Your task to perform on an android device: toggle notification dots Image 0: 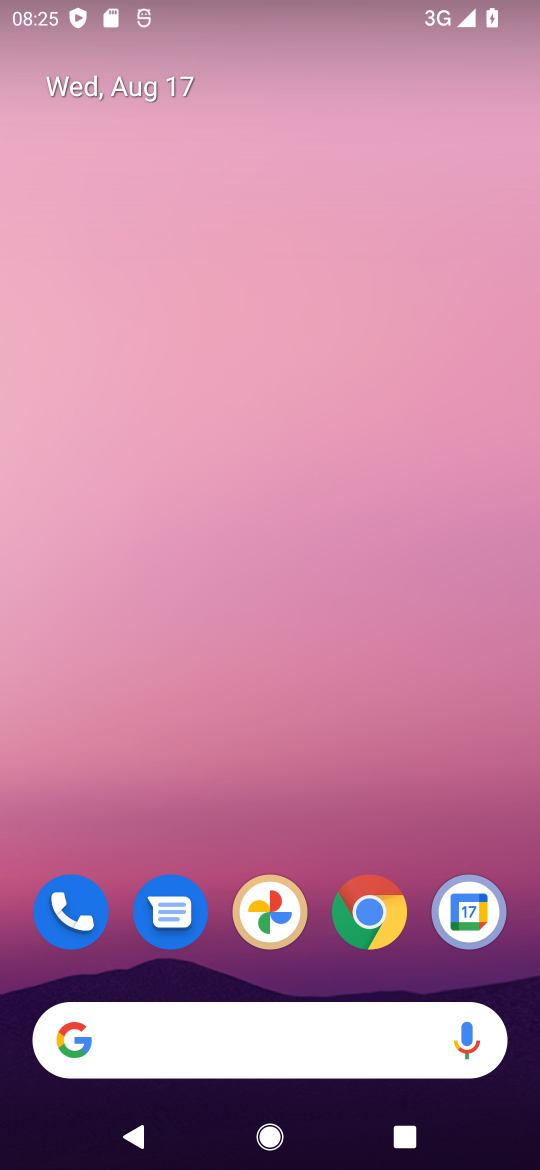
Step 0: drag from (205, 1033) to (236, 318)
Your task to perform on an android device: toggle notification dots Image 1: 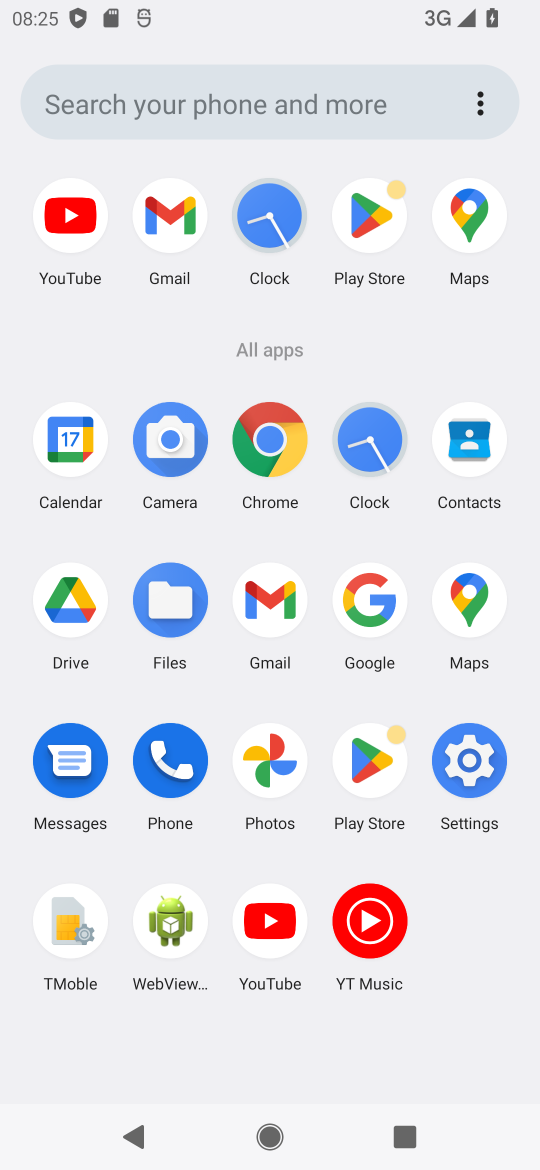
Step 1: click (460, 772)
Your task to perform on an android device: toggle notification dots Image 2: 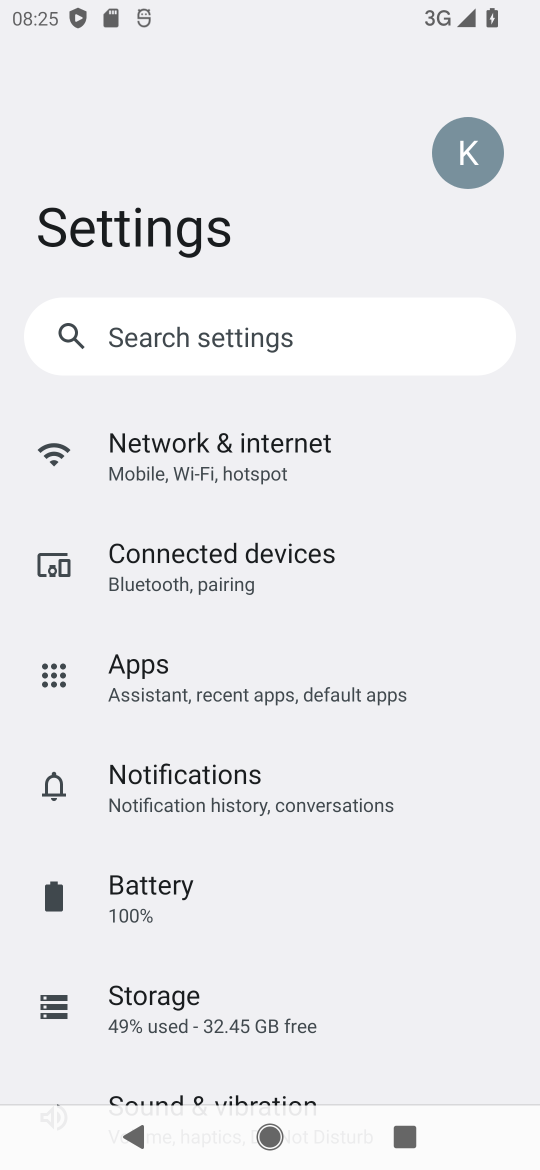
Step 2: click (204, 793)
Your task to perform on an android device: toggle notification dots Image 3: 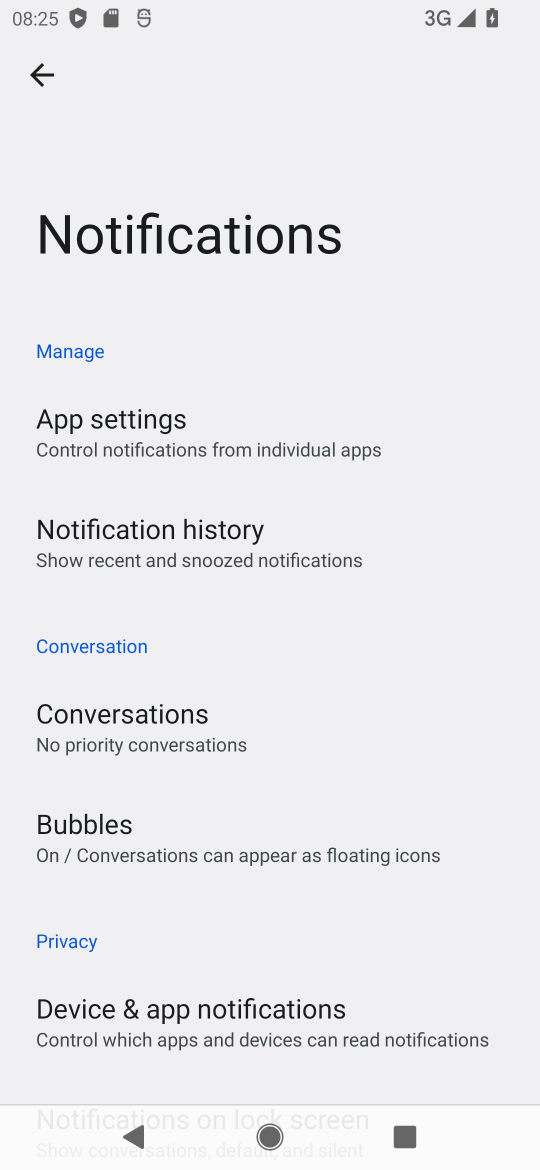
Step 3: click (92, 544)
Your task to perform on an android device: toggle notification dots Image 4: 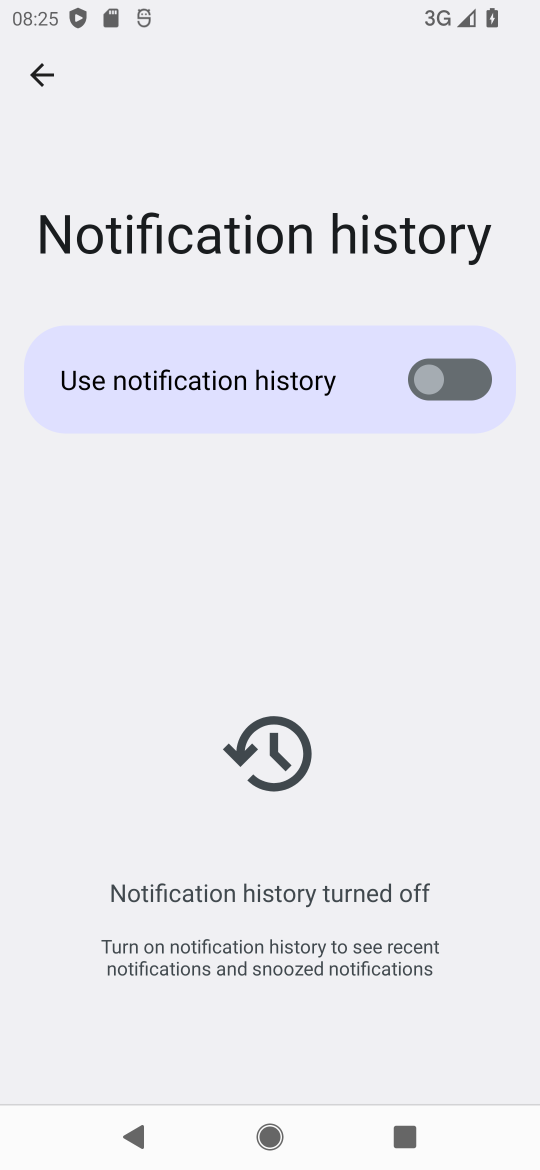
Step 4: click (452, 374)
Your task to perform on an android device: toggle notification dots Image 5: 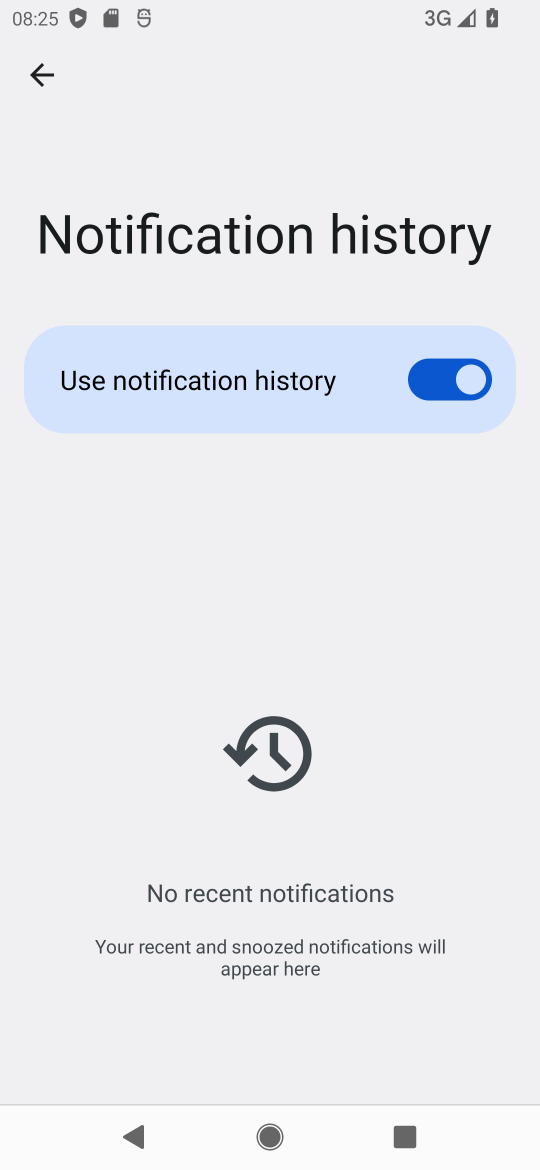
Step 5: click (28, 79)
Your task to perform on an android device: toggle notification dots Image 6: 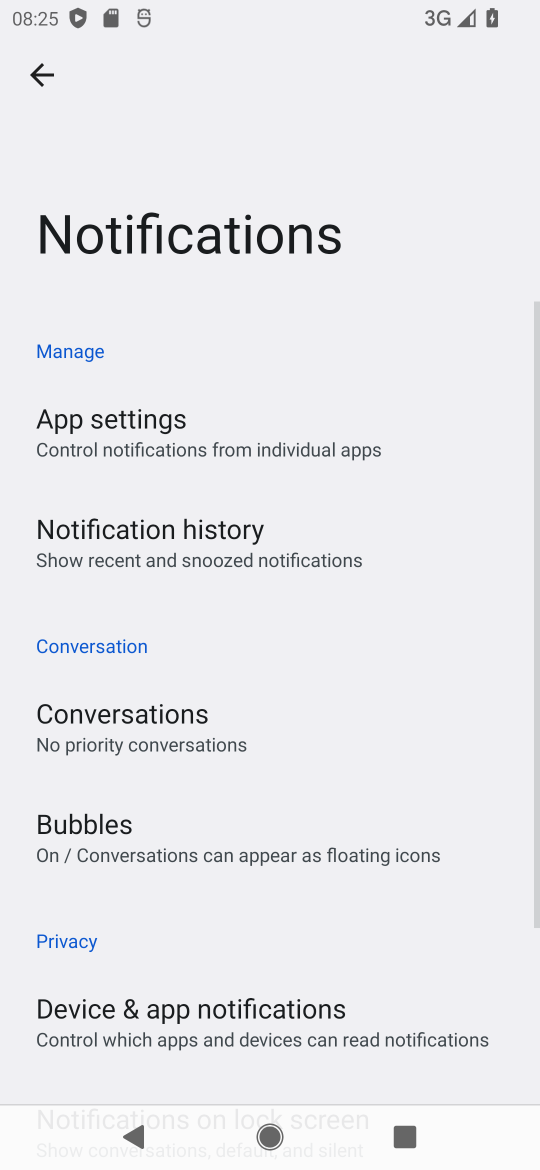
Step 6: drag from (201, 840) to (201, 416)
Your task to perform on an android device: toggle notification dots Image 7: 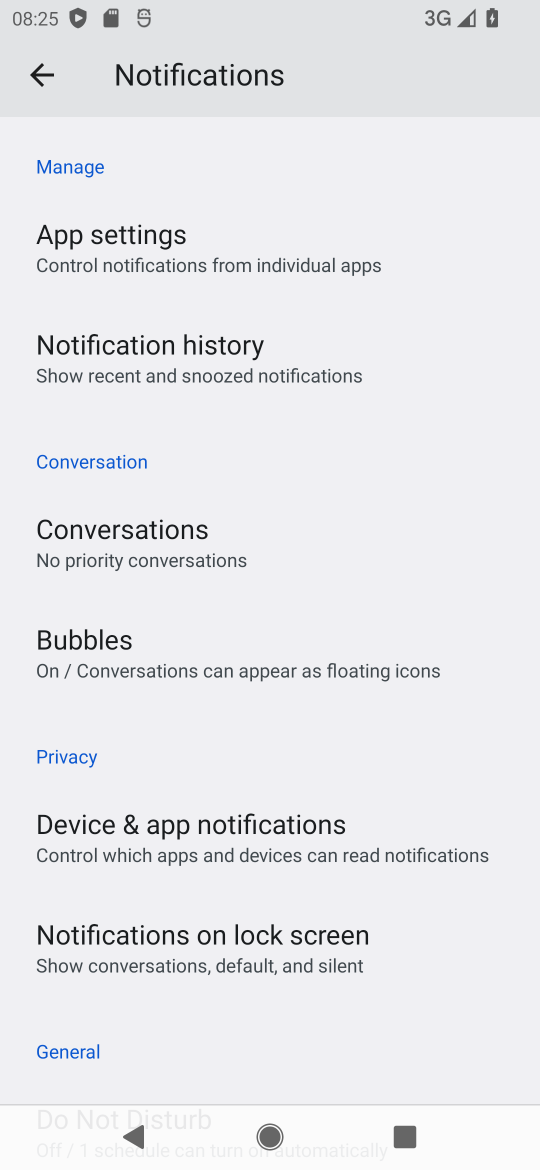
Step 7: drag from (160, 1042) to (180, 382)
Your task to perform on an android device: toggle notification dots Image 8: 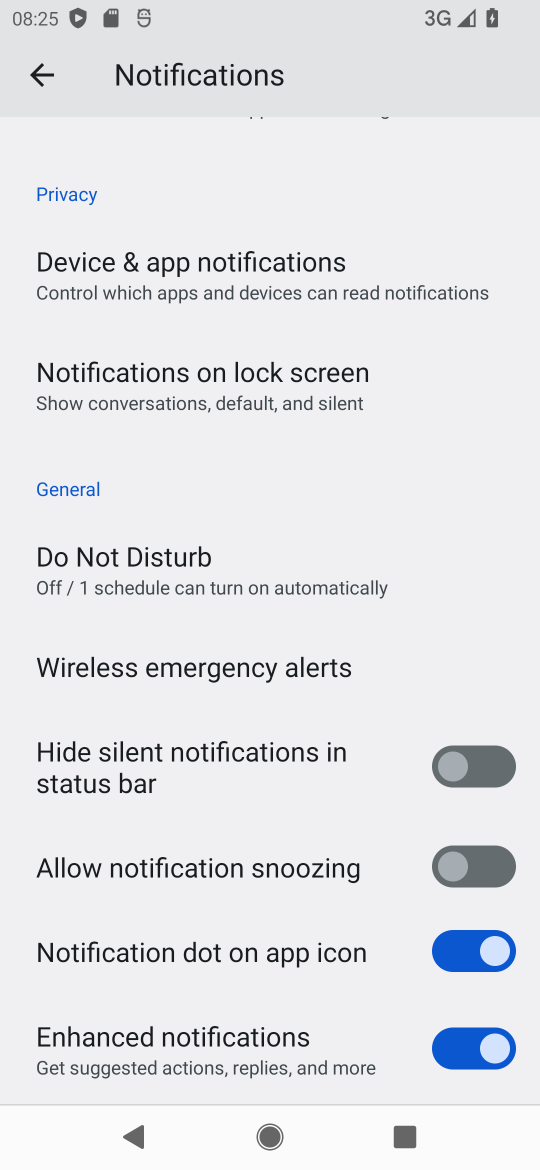
Step 8: click (462, 953)
Your task to perform on an android device: toggle notification dots Image 9: 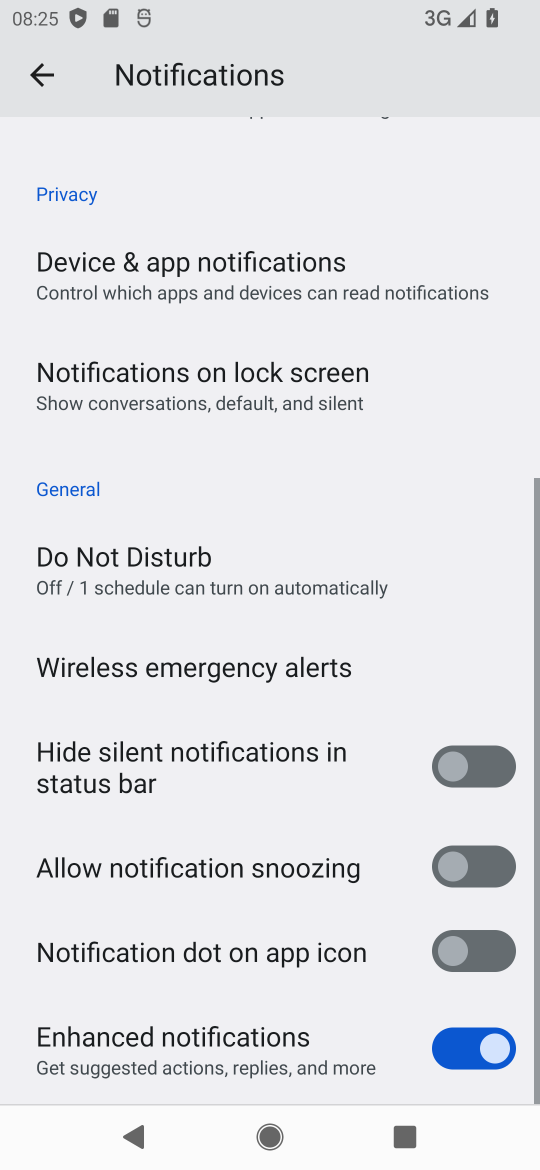
Step 9: task complete